Your task to perform on an android device: change timer sound Image 0: 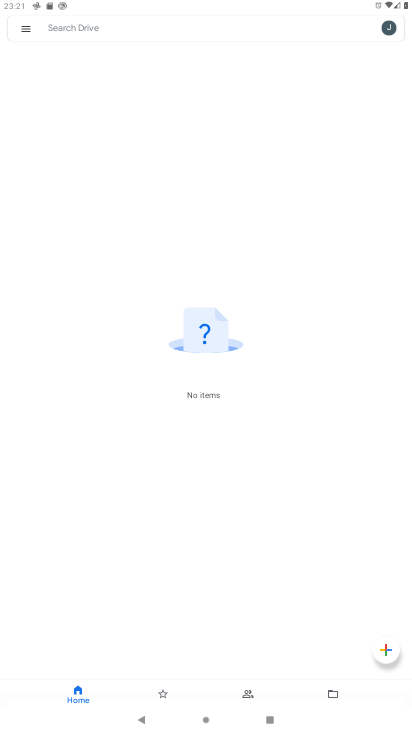
Step 0: press home button
Your task to perform on an android device: change timer sound Image 1: 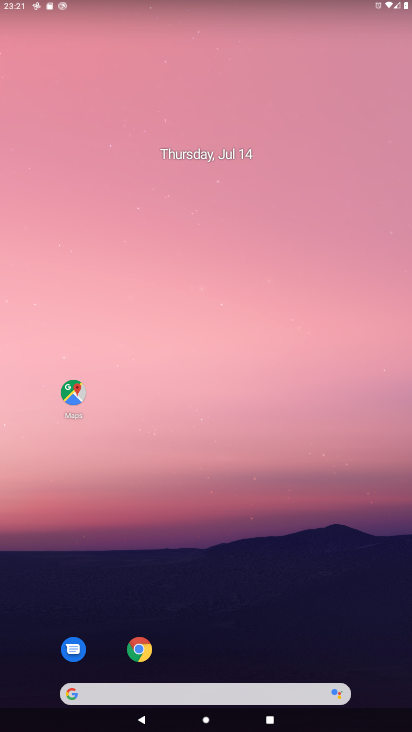
Step 1: drag from (226, 716) to (318, 114)
Your task to perform on an android device: change timer sound Image 2: 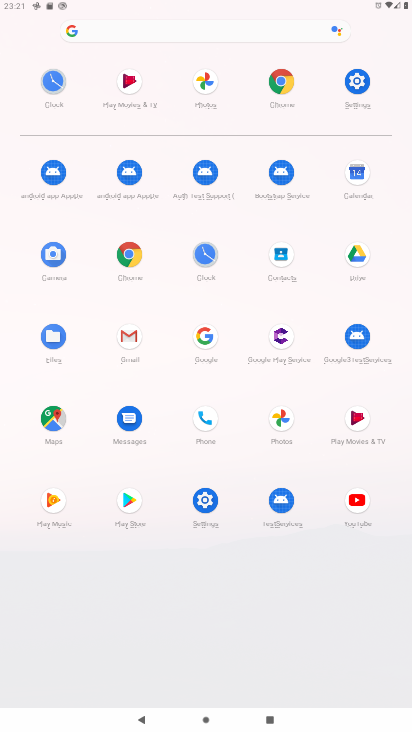
Step 2: click (359, 86)
Your task to perform on an android device: change timer sound Image 3: 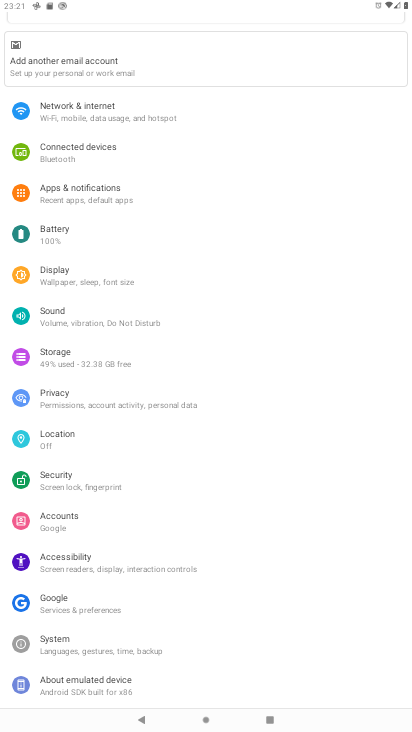
Step 3: press home button
Your task to perform on an android device: change timer sound Image 4: 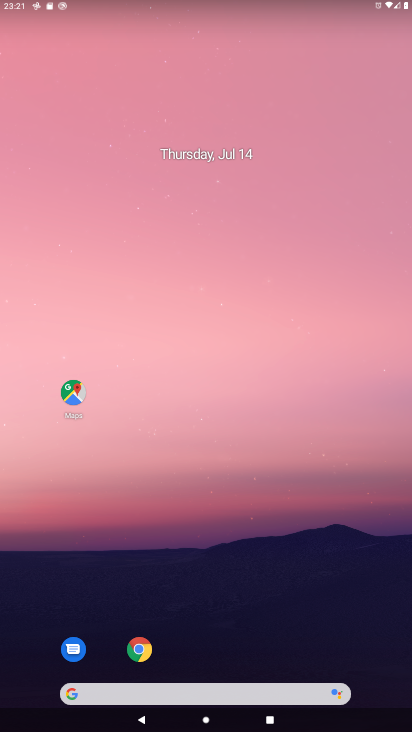
Step 4: drag from (195, 458) to (273, 89)
Your task to perform on an android device: change timer sound Image 5: 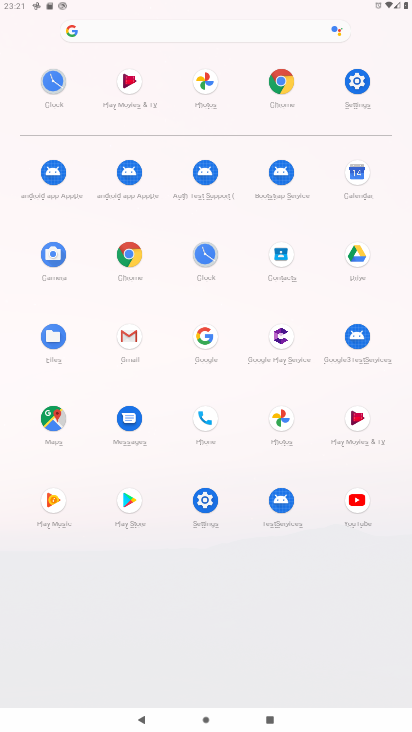
Step 5: click (56, 79)
Your task to perform on an android device: change timer sound Image 6: 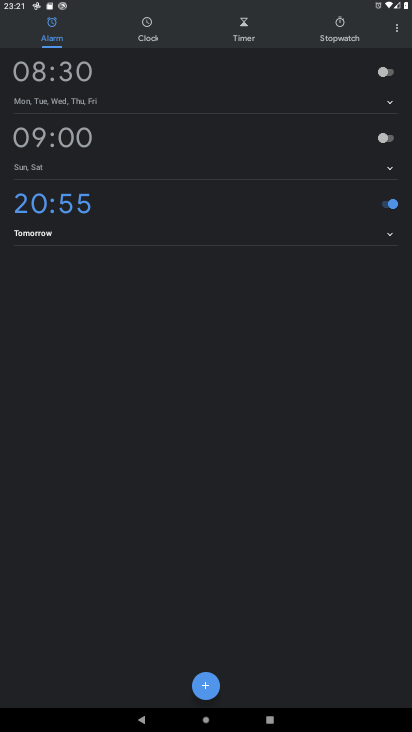
Step 6: click (250, 34)
Your task to perform on an android device: change timer sound Image 7: 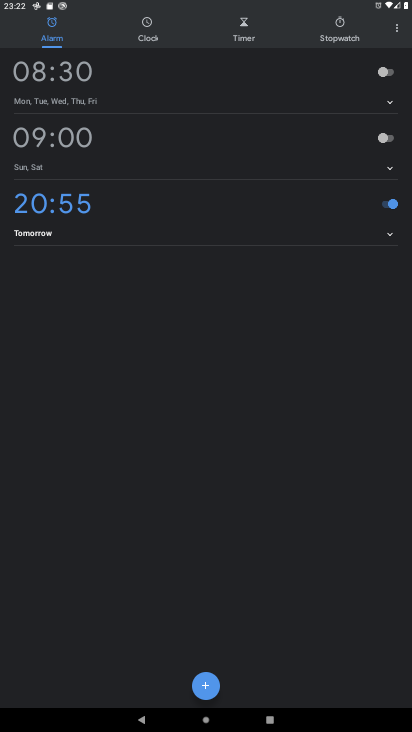
Step 7: click (402, 28)
Your task to perform on an android device: change timer sound Image 8: 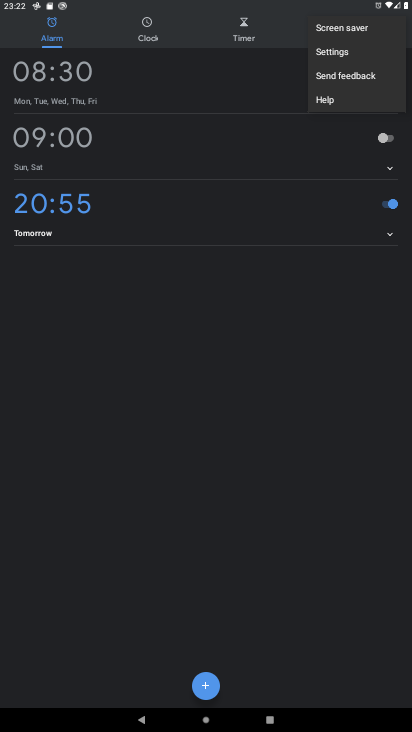
Step 8: click (312, 54)
Your task to perform on an android device: change timer sound Image 9: 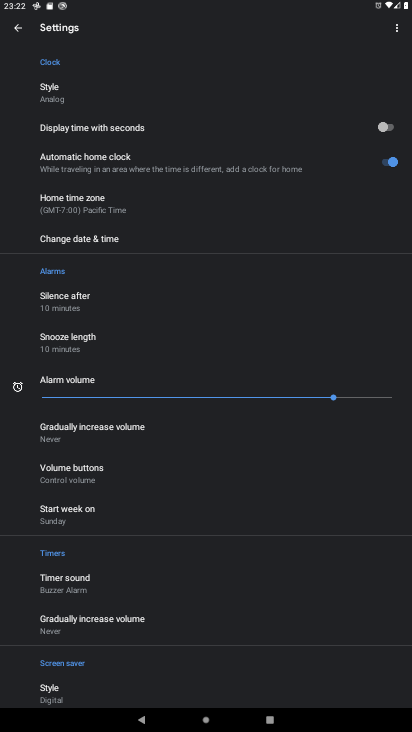
Step 9: click (78, 590)
Your task to perform on an android device: change timer sound Image 10: 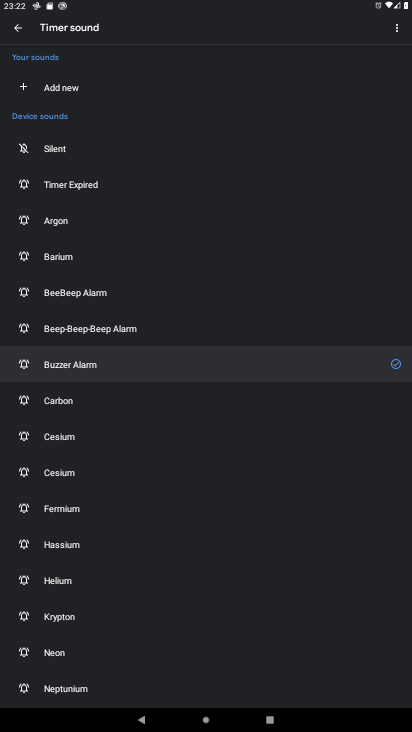
Step 10: click (95, 512)
Your task to perform on an android device: change timer sound Image 11: 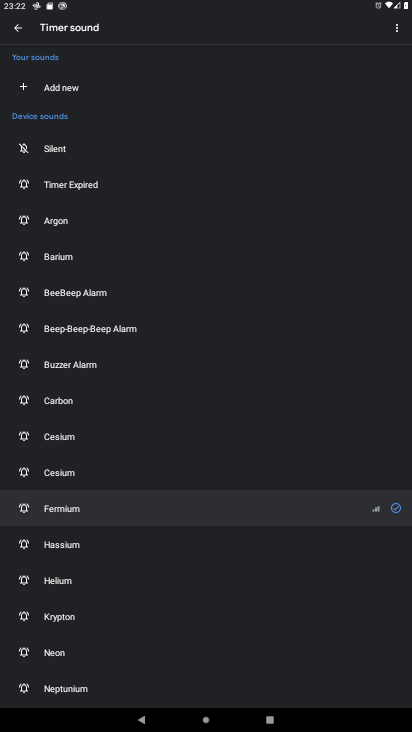
Step 11: task complete